Your task to perform on an android device: Go to Amazon Image 0: 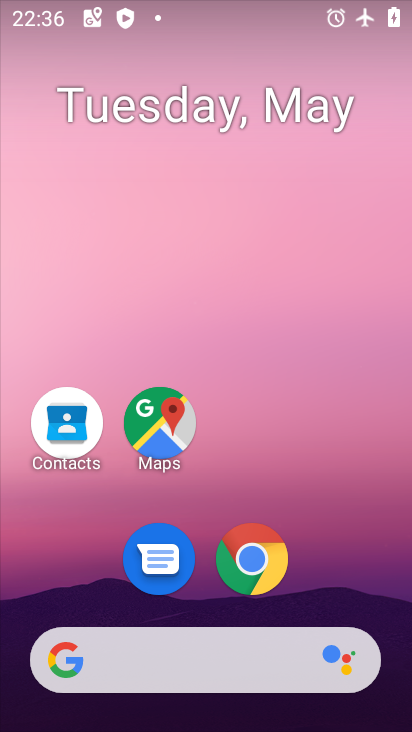
Step 0: click (232, 663)
Your task to perform on an android device: Go to Amazon Image 1: 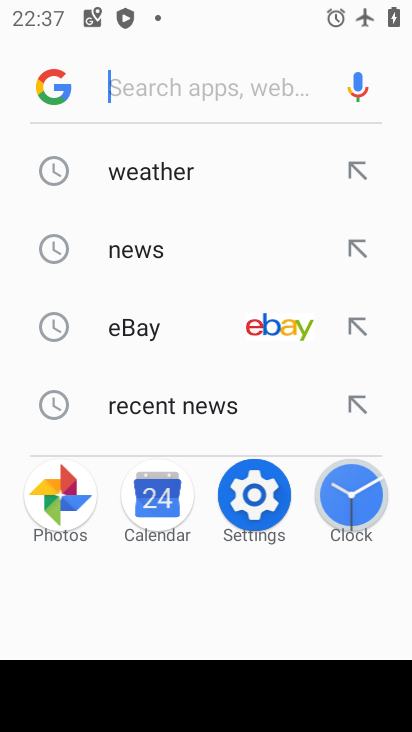
Step 1: type "amazon"
Your task to perform on an android device: Go to Amazon Image 2: 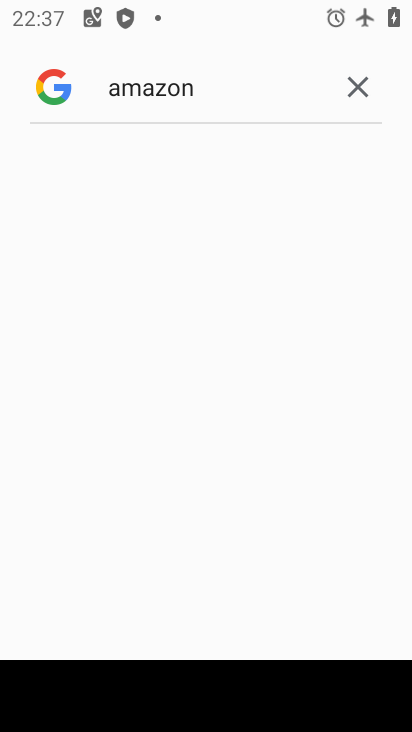
Step 2: task complete